Your task to perform on an android device: turn on improve location accuracy Image 0: 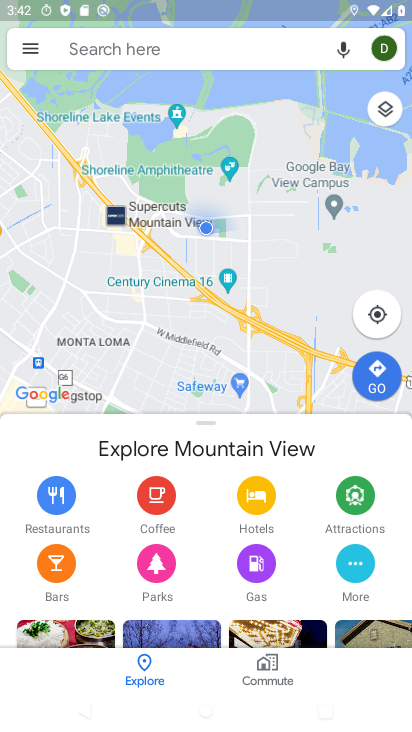
Step 0: drag from (291, 9) to (244, 729)
Your task to perform on an android device: turn on improve location accuracy Image 1: 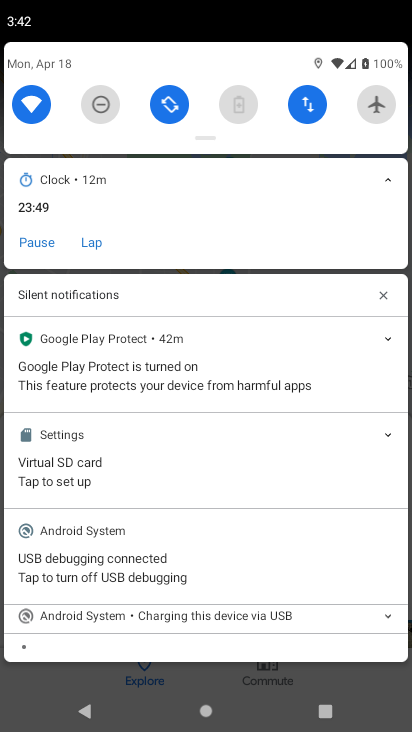
Step 1: drag from (198, 100) to (252, 730)
Your task to perform on an android device: turn on improve location accuracy Image 2: 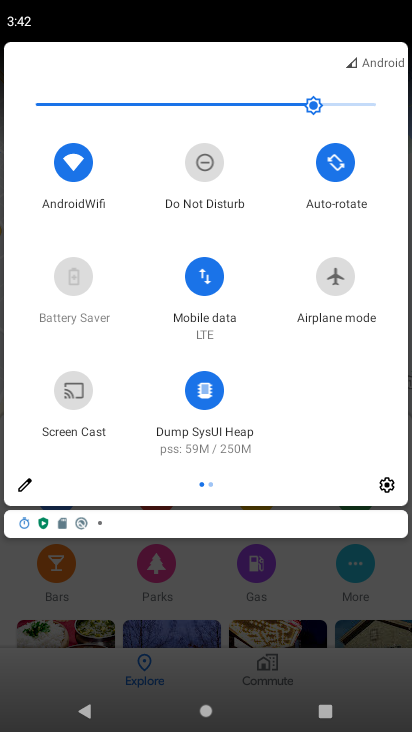
Step 2: click (382, 484)
Your task to perform on an android device: turn on improve location accuracy Image 3: 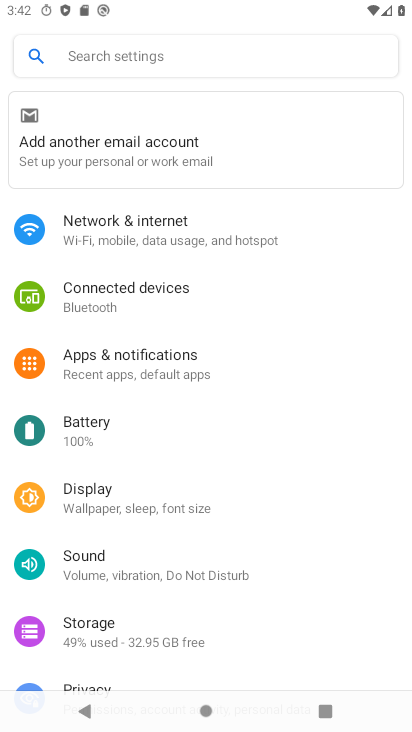
Step 3: drag from (103, 614) to (350, 110)
Your task to perform on an android device: turn on improve location accuracy Image 4: 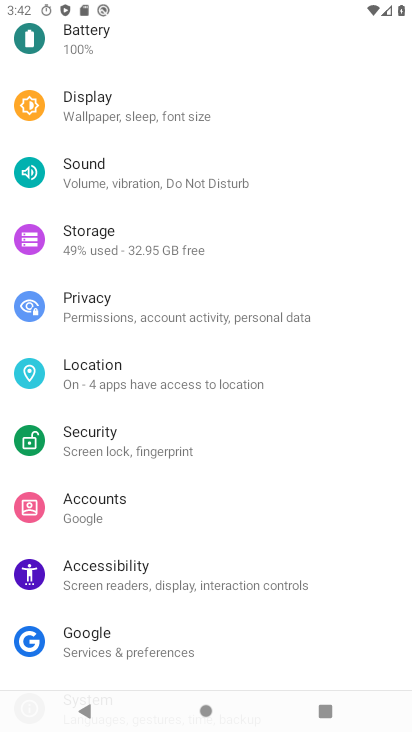
Step 4: click (108, 368)
Your task to perform on an android device: turn on improve location accuracy Image 5: 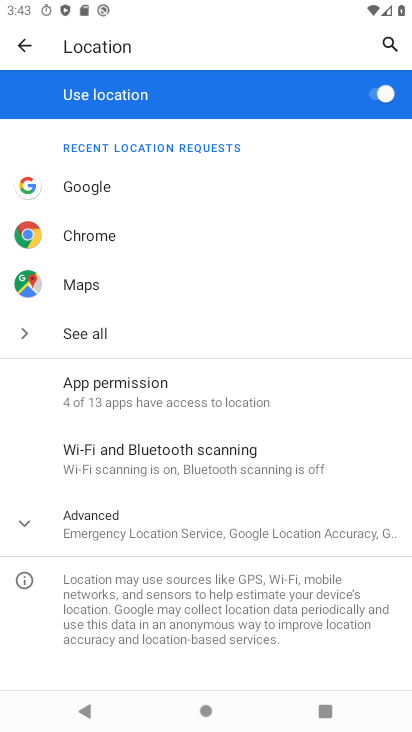
Step 5: click (156, 534)
Your task to perform on an android device: turn on improve location accuracy Image 6: 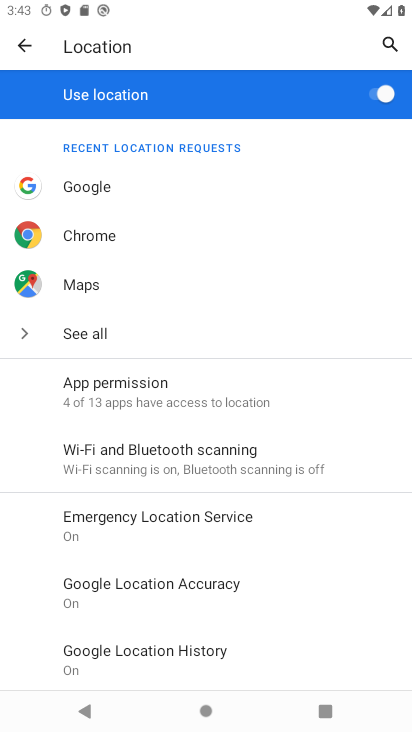
Step 6: click (180, 574)
Your task to perform on an android device: turn on improve location accuracy Image 7: 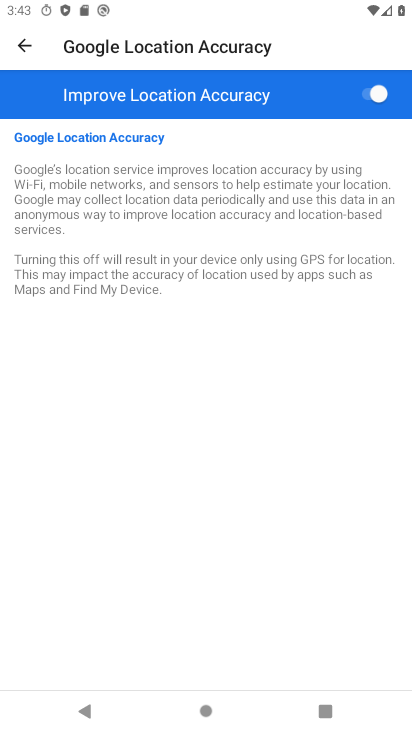
Step 7: task complete